Your task to perform on an android device: Is it going to rain today? Image 0: 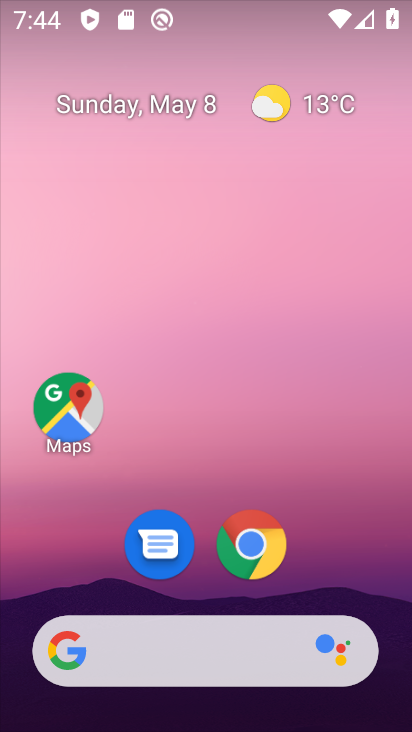
Step 0: click (302, 102)
Your task to perform on an android device: Is it going to rain today? Image 1: 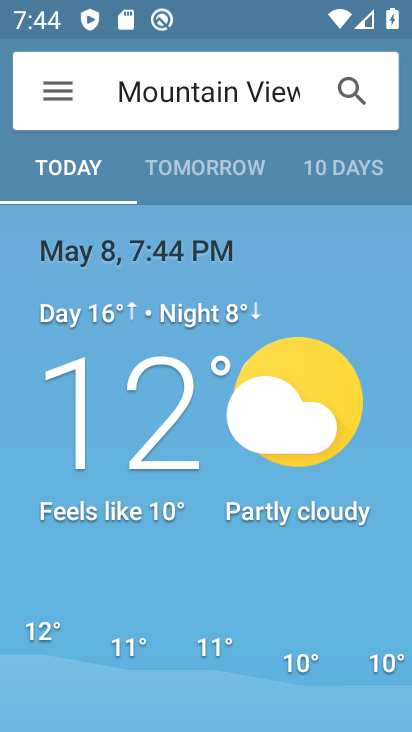
Step 1: task complete